Your task to perform on an android device: Go to Wikipedia Image 0: 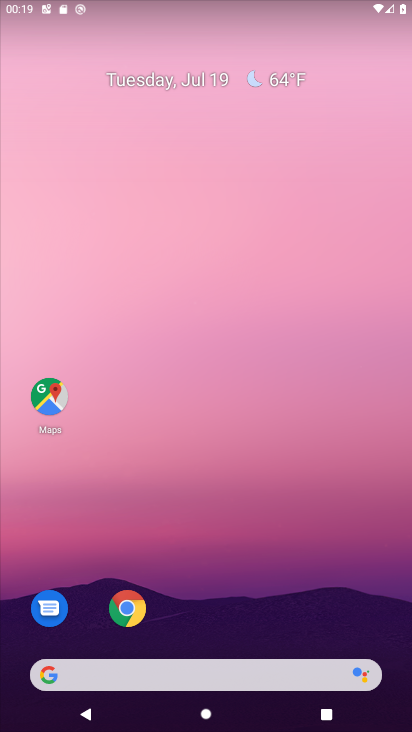
Step 0: drag from (247, 610) to (270, 86)
Your task to perform on an android device: Go to Wikipedia Image 1: 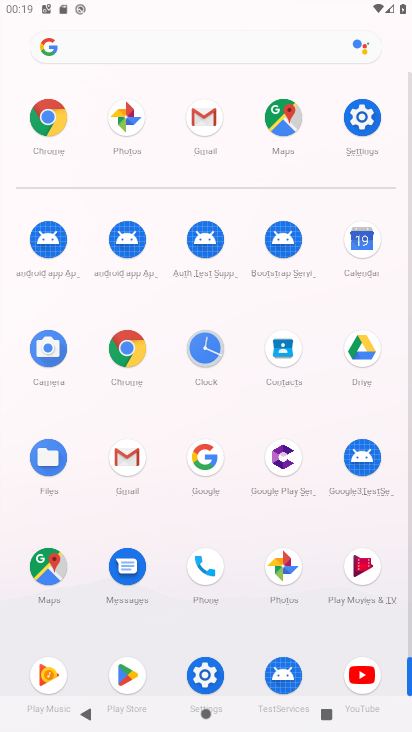
Step 1: click (65, 127)
Your task to perform on an android device: Go to Wikipedia Image 2: 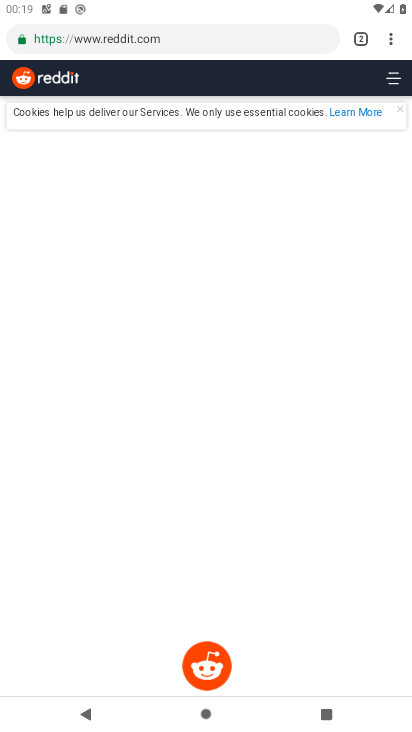
Step 2: click (344, 31)
Your task to perform on an android device: Go to Wikipedia Image 3: 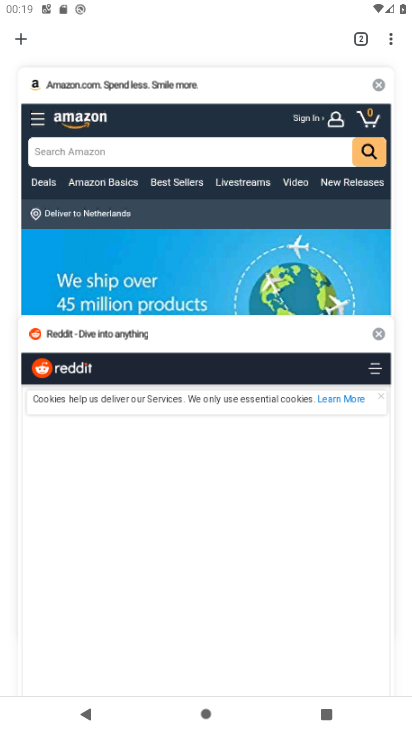
Step 3: click (16, 42)
Your task to perform on an android device: Go to Wikipedia Image 4: 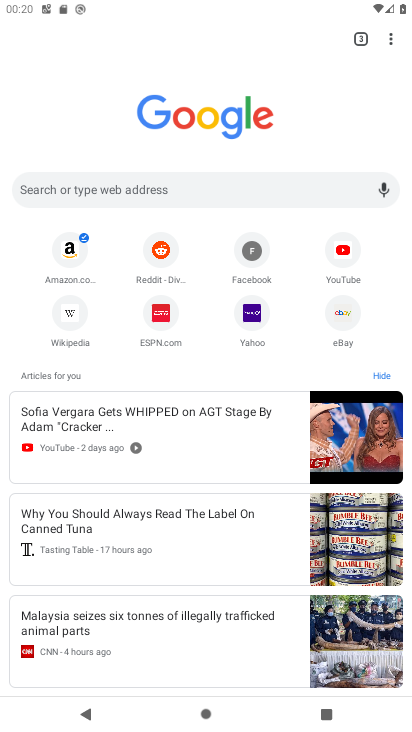
Step 4: click (71, 316)
Your task to perform on an android device: Go to Wikipedia Image 5: 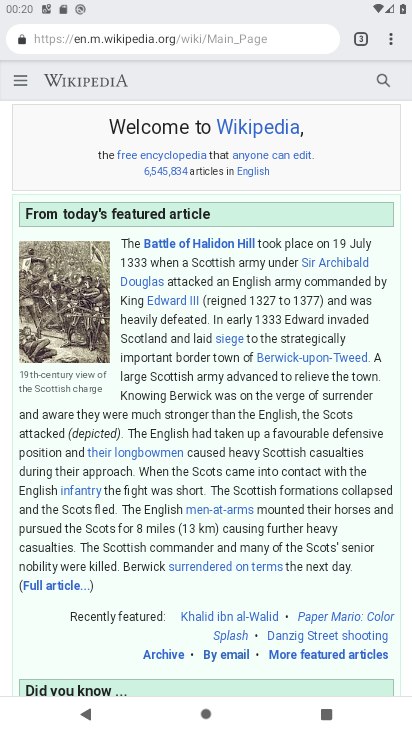
Step 5: task complete